Your task to perform on an android device: Open Google Image 0: 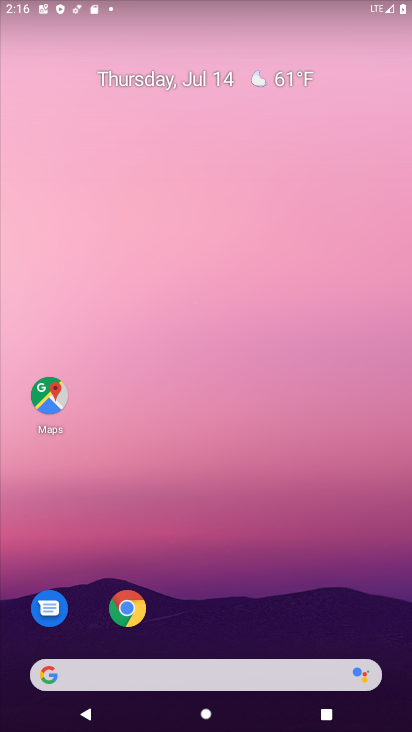
Step 0: drag from (194, 635) to (235, 240)
Your task to perform on an android device: Open Google Image 1: 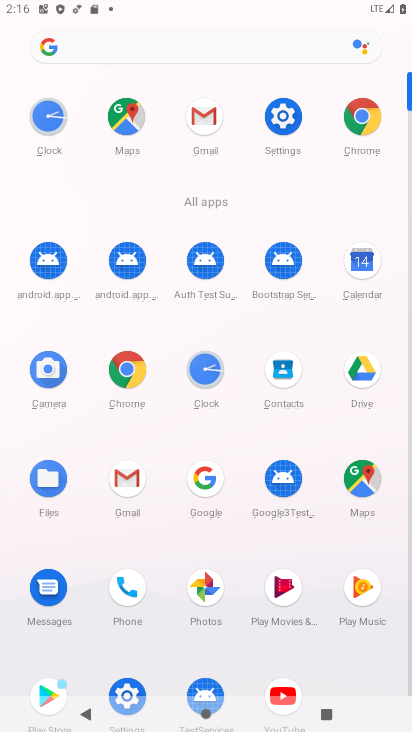
Step 1: click (209, 469)
Your task to perform on an android device: Open Google Image 2: 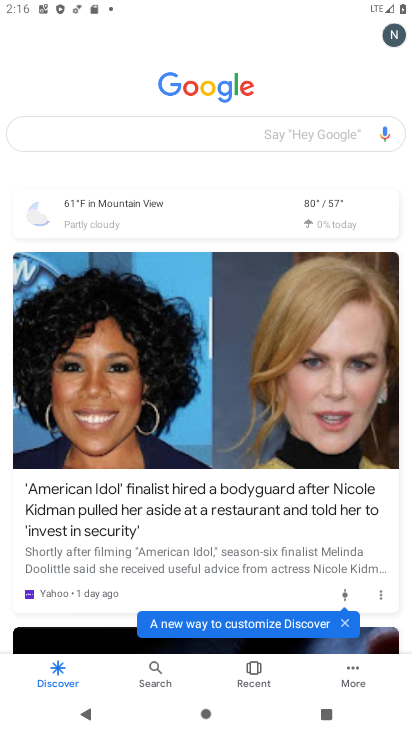
Step 2: task complete